Your task to perform on an android device: Go to accessibility settings Image 0: 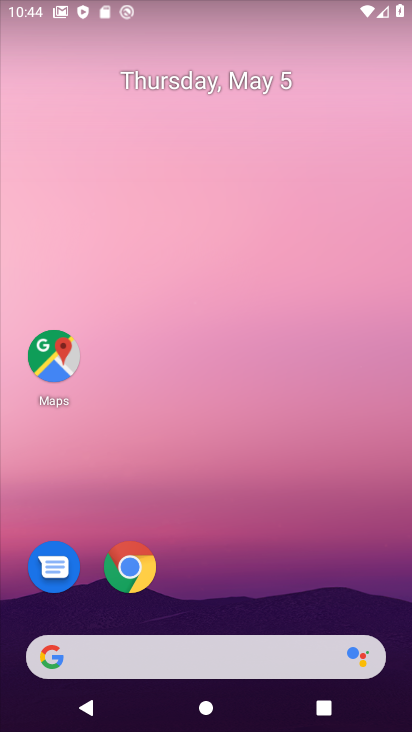
Step 0: drag from (242, 565) to (362, 72)
Your task to perform on an android device: Go to accessibility settings Image 1: 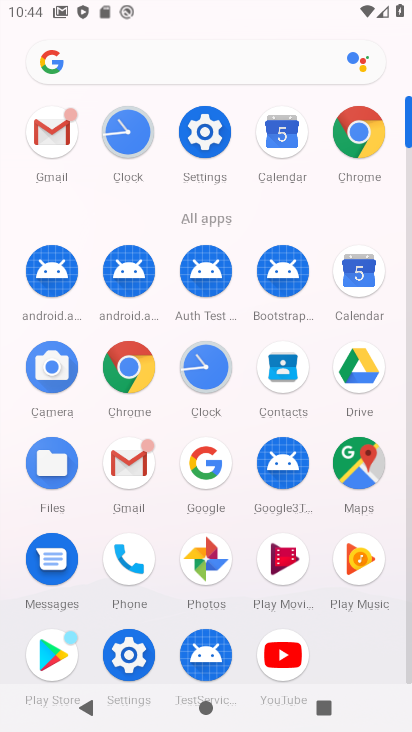
Step 1: click (206, 132)
Your task to perform on an android device: Go to accessibility settings Image 2: 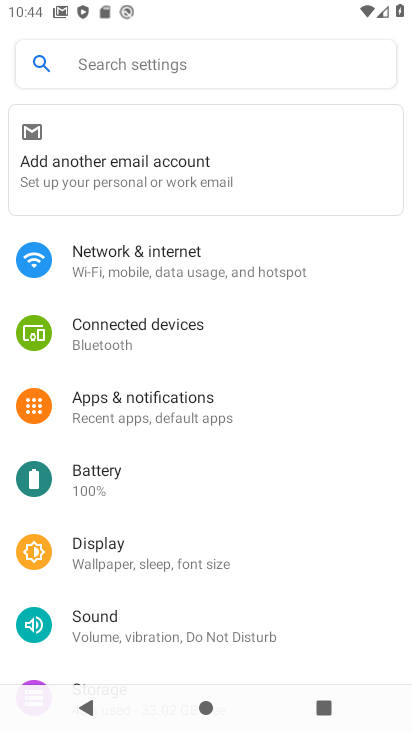
Step 2: drag from (186, 620) to (279, 82)
Your task to perform on an android device: Go to accessibility settings Image 3: 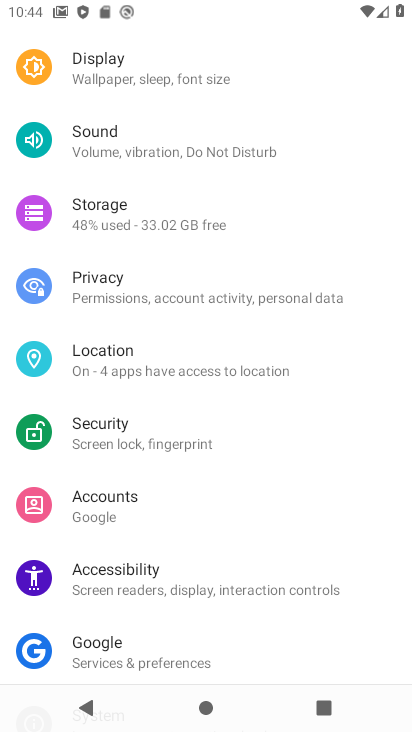
Step 3: click (119, 578)
Your task to perform on an android device: Go to accessibility settings Image 4: 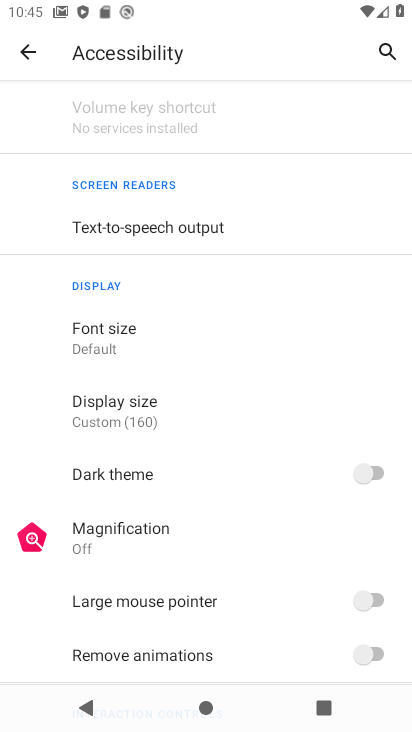
Step 4: task complete